Your task to perform on an android device: Go to wifi settings Image 0: 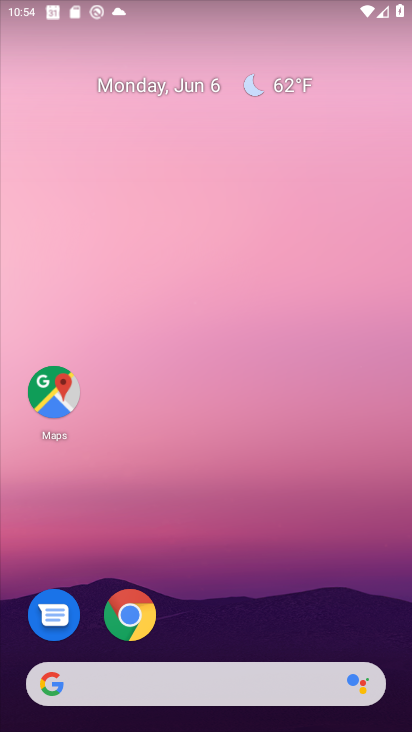
Step 0: drag from (222, 533) to (200, 9)
Your task to perform on an android device: Go to wifi settings Image 1: 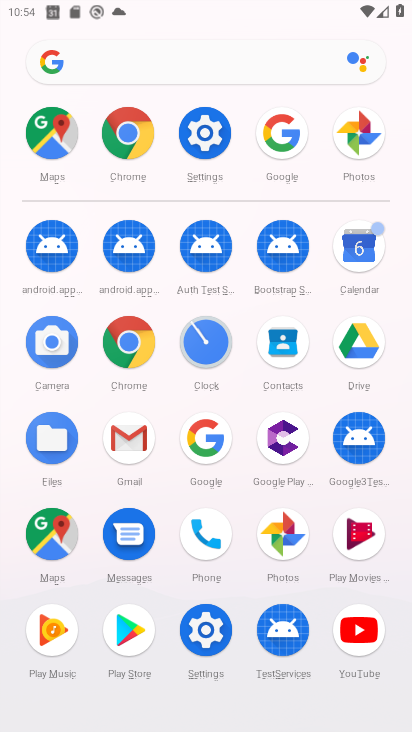
Step 1: click (201, 128)
Your task to perform on an android device: Go to wifi settings Image 2: 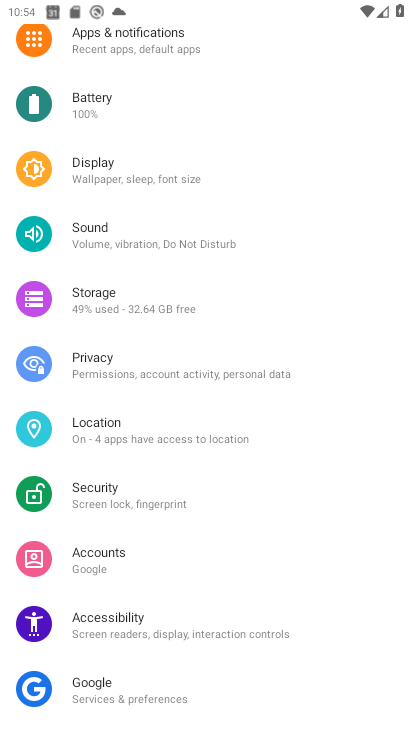
Step 2: drag from (104, 118) to (126, 496)
Your task to perform on an android device: Go to wifi settings Image 3: 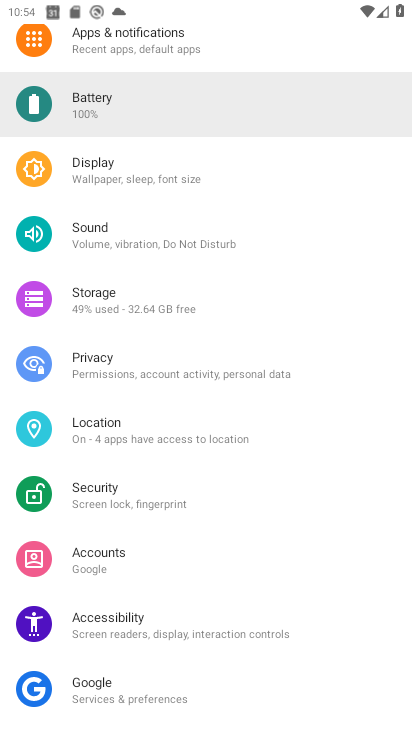
Step 3: drag from (121, 217) to (131, 542)
Your task to perform on an android device: Go to wifi settings Image 4: 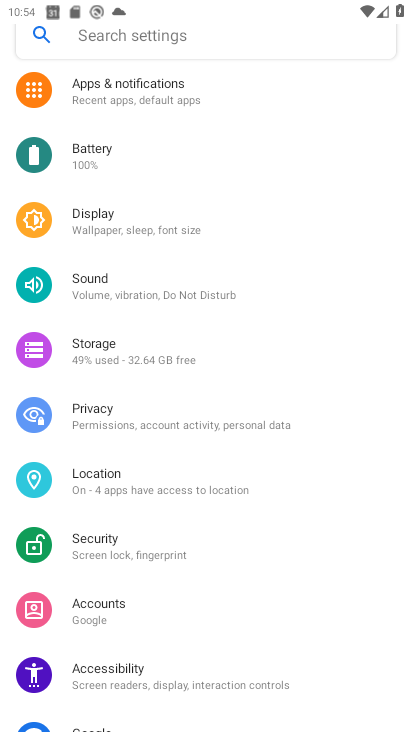
Step 4: drag from (143, 198) to (141, 617)
Your task to perform on an android device: Go to wifi settings Image 5: 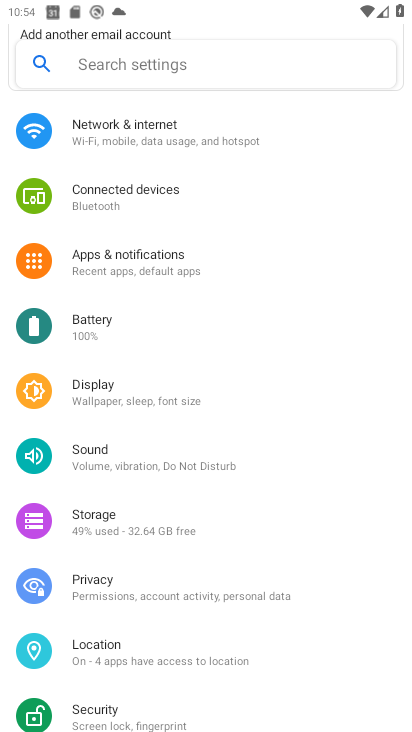
Step 5: drag from (193, 213) to (185, 552)
Your task to perform on an android device: Go to wifi settings Image 6: 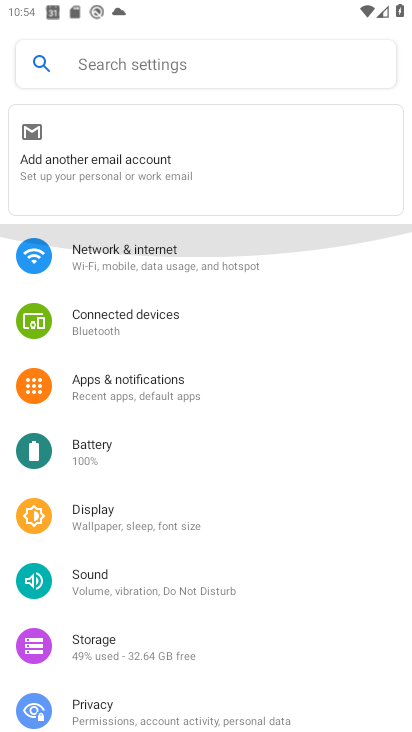
Step 6: drag from (152, 148) to (123, 492)
Your task to perform on an android device: Go to wifi settings Image 7: 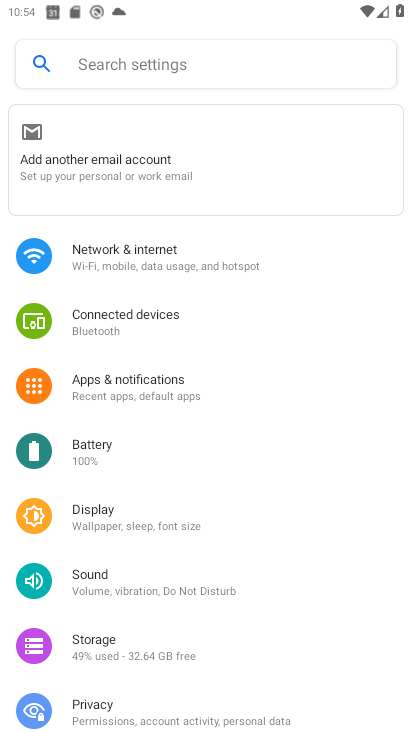
Step 7: click (124, 255)
Your task to perform on an android device: Go to wifi settings Image 8: 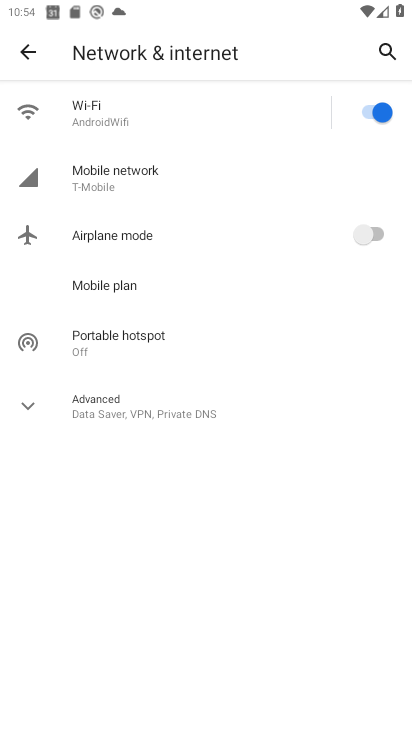
Step 8: task complete